Your task to perform on an android device: turn off sleep mode Image 0: 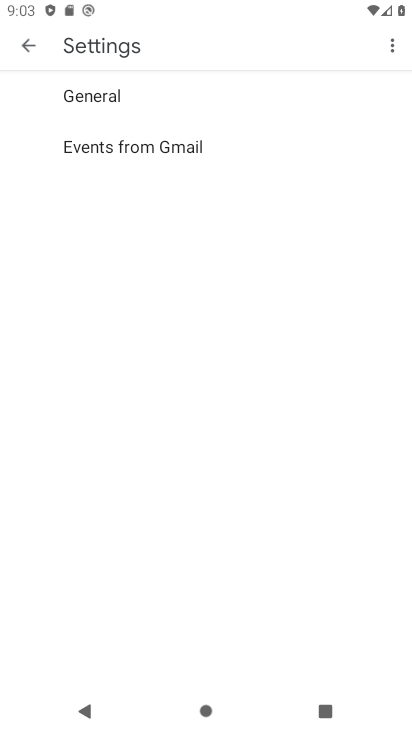
Step 0: press home button
Your task to perform on an android device: turn off sleep mode Image 1: 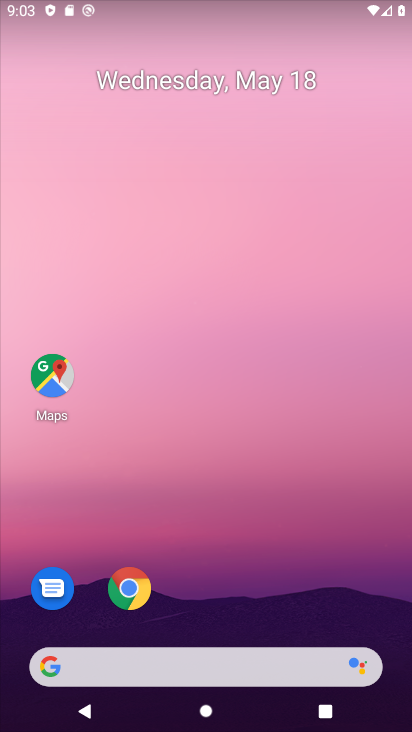
Step 1: drag from (293, 690) to (410, 197)
Your task to perform on an android device: turn off sleep mode Image 2: 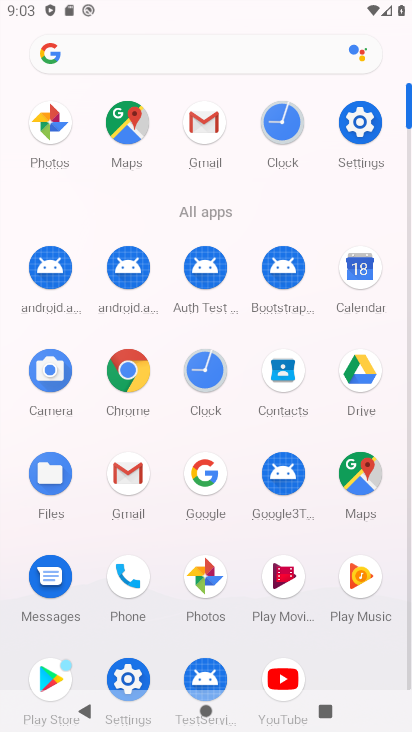
Step 2: click (373, 128)
Your task to perform on an android device: turn off sleep mode Image 3: 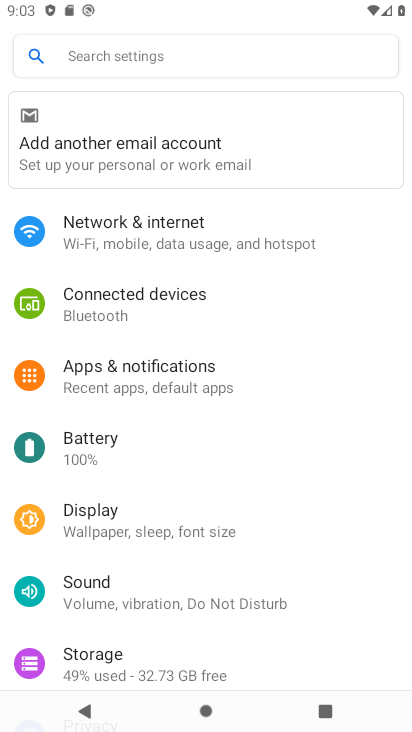
Step 3: click (205, 47)
Your task to perform on an android device: turn off sleep mode Image 4: 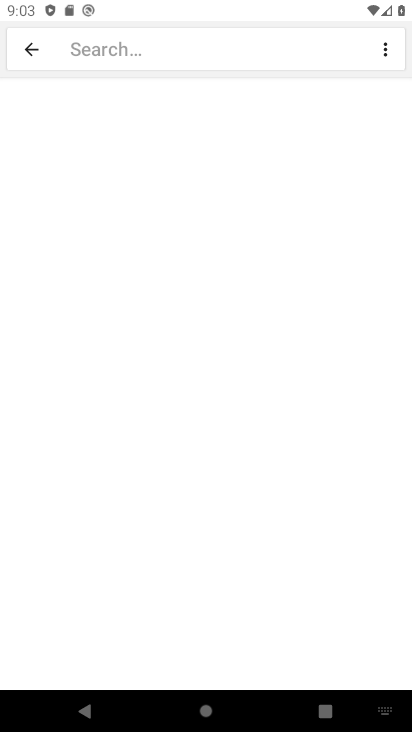
Step 4: click (393, 710)
Your task to perform on an android device: turn off sleep mode Image 5: 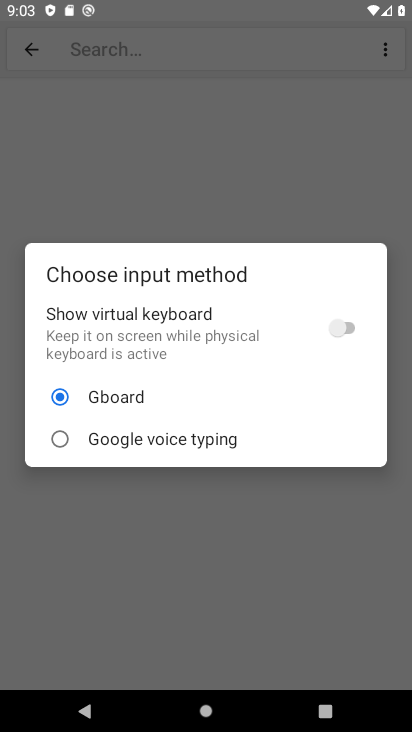
Step 5: click (351, 327)
Your task to perform on an android device: turn off sleep mode Image 6: 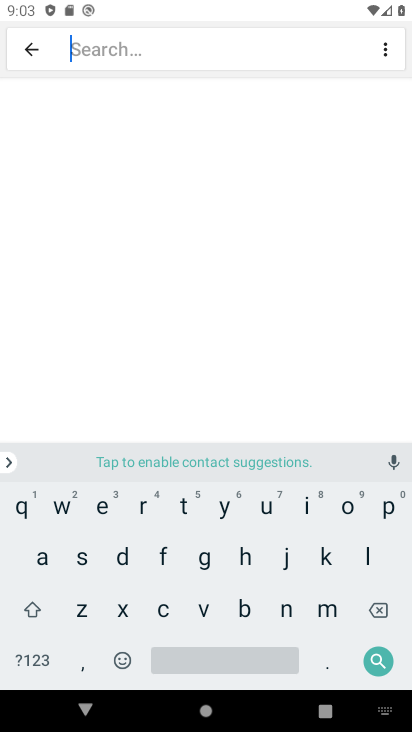
Step 6: click (81, 566)
Your task to perform on an android device: turn off sleep mode Image 7: 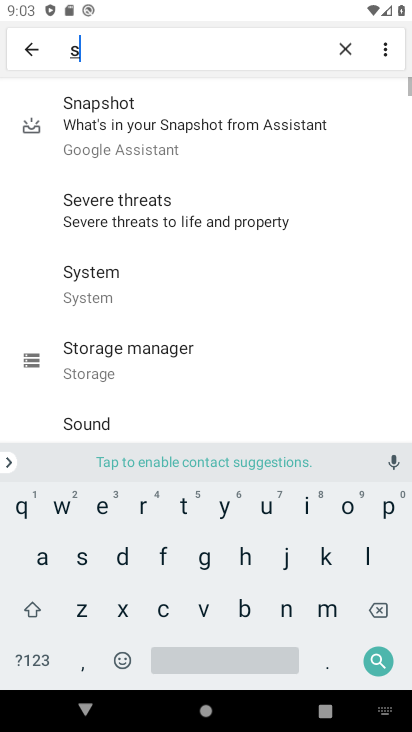
Step 7: click (373, 558)
Your task to perform on an android device: turn off sleep mode Image 8: 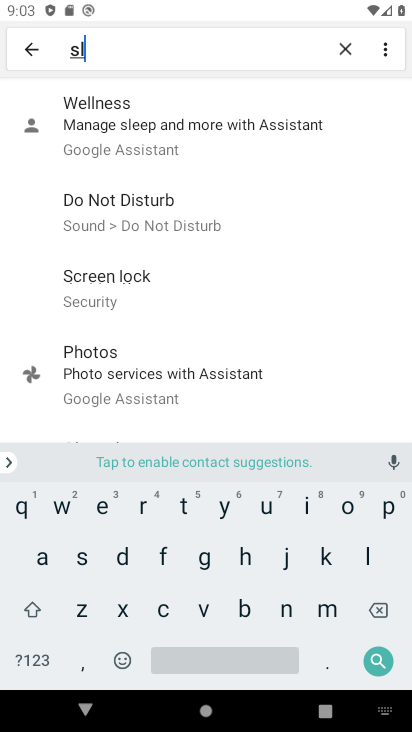
Step 8: click (129, 124)
Your task to perform on an android device: turn off sleep mode Image 9: 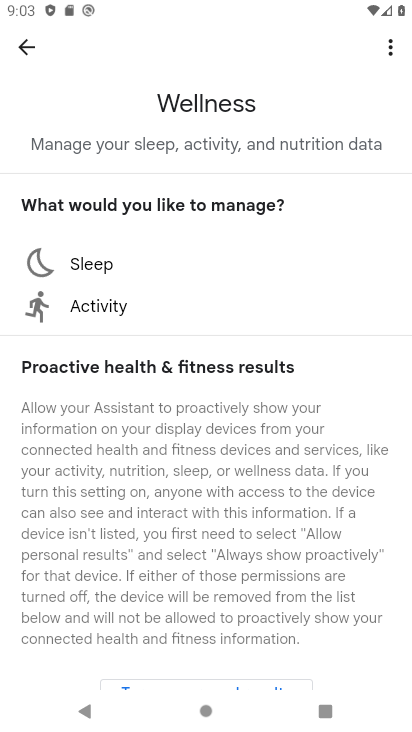
Step 9: click (107, 263)
Your task to perform on an android device: turn off sleep mode Image 10: 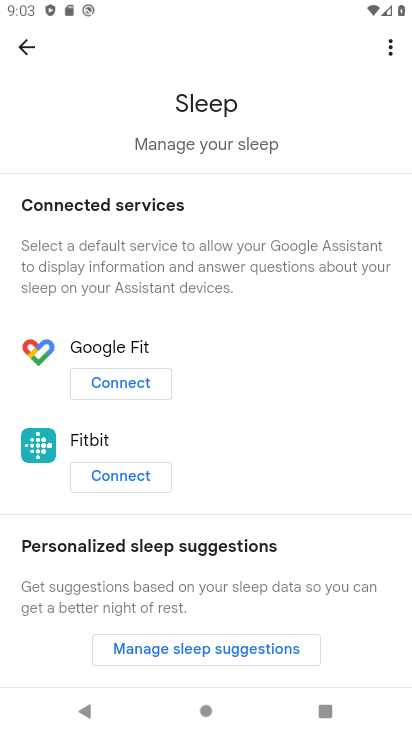
Step 10: task complete